Your task to perform on an android device: When is my next meeting? Image 0: 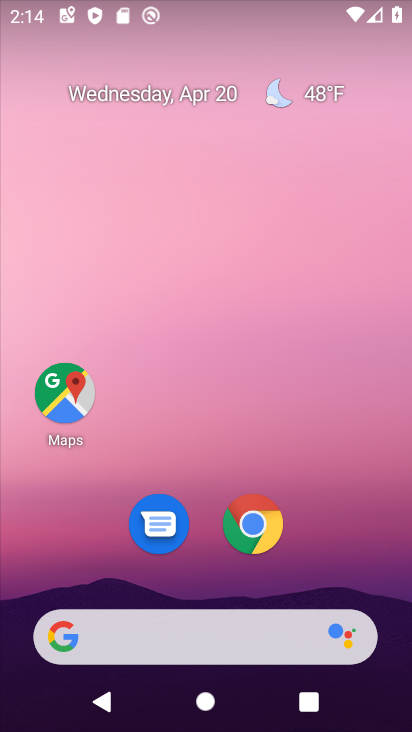
Step 0: drag from (334, 558) to (294, 41)
Your task to perform on an android device: When is my next meeting? Image 1: 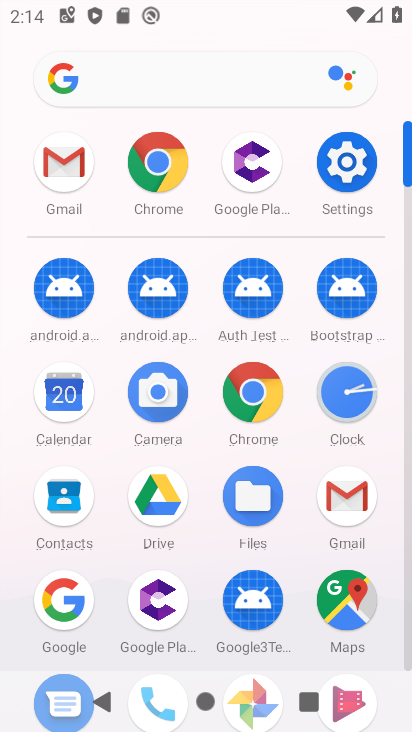
Step 1: click (57, 390)
Your task to perform on an android device: When is my next meeting? Image 2: 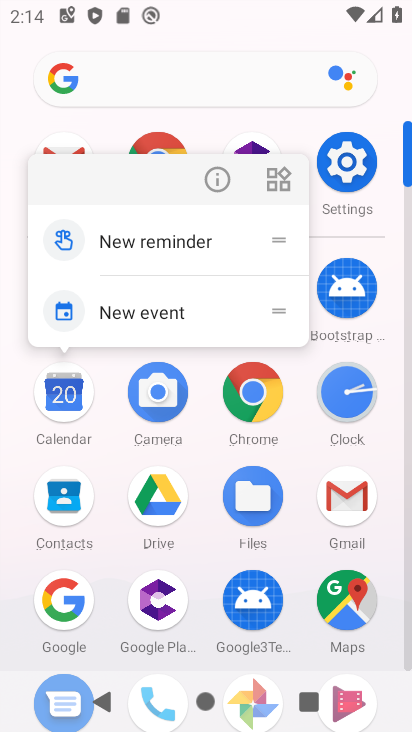
Step 2: click (57, 391)
Your task to perform on an android device: When is my next meeting? Image 3: 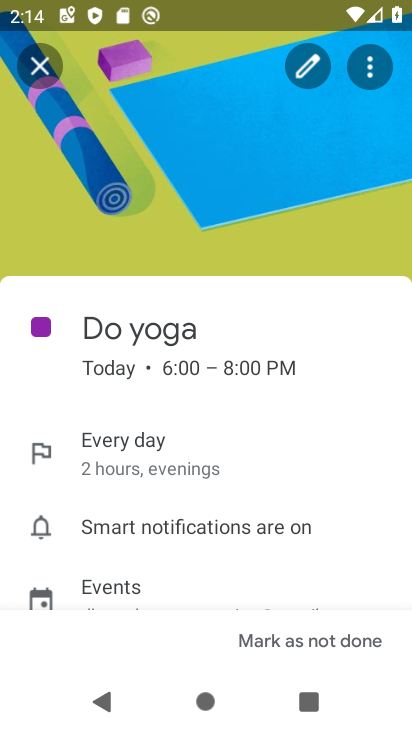
Step 3: click (47, 66)
Your task to perform on an android device: When is my next meeting? Image 4: 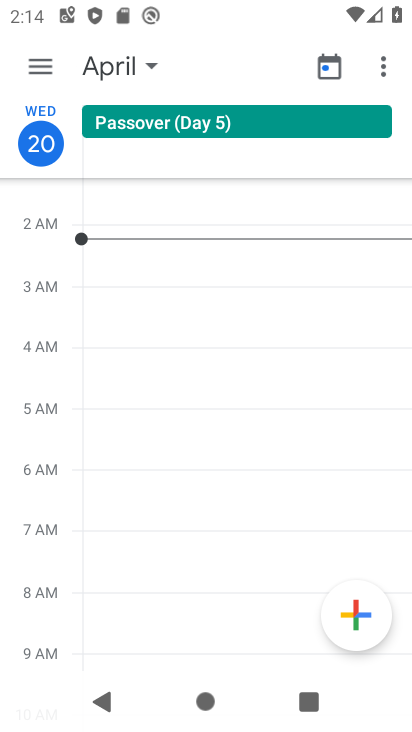
Step 4: click (47, 66)
Your task to perform on an android device: When is my next meeting? Image 5: 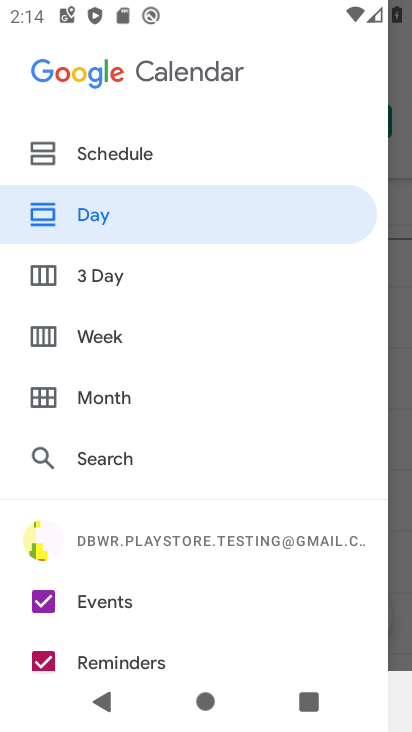
Step 5: click (92, 144)
Your task to perform on an android device: When is my next meeting? Image 6: 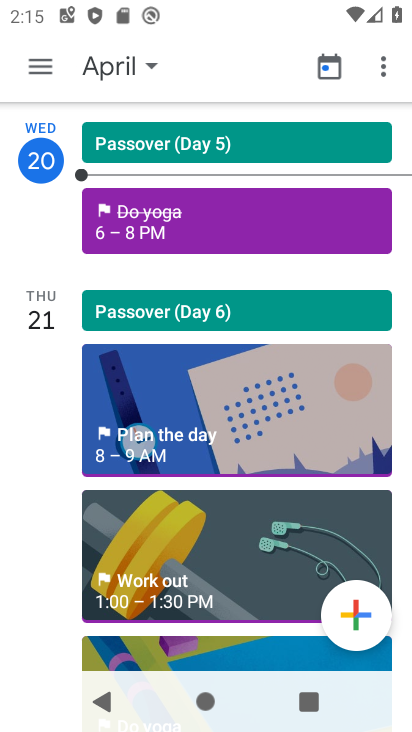
Step 6: task complete